Your task to perform on an android device: uninstall "TextNow: Call + Text Unlimited" Image 0: 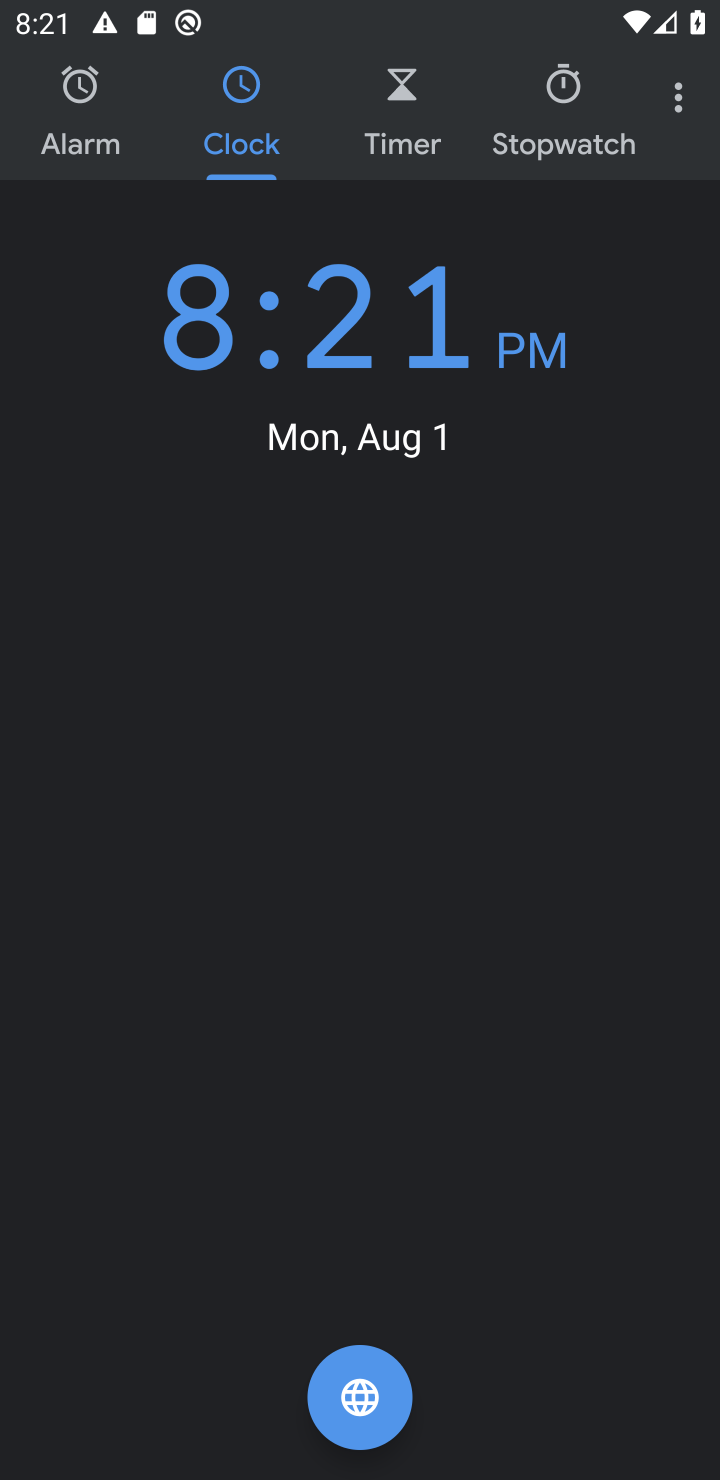
Step 0: press home button
Your task to perform on an android device: uninstall "TextNow: Call + Text Unlimited" Image 1: 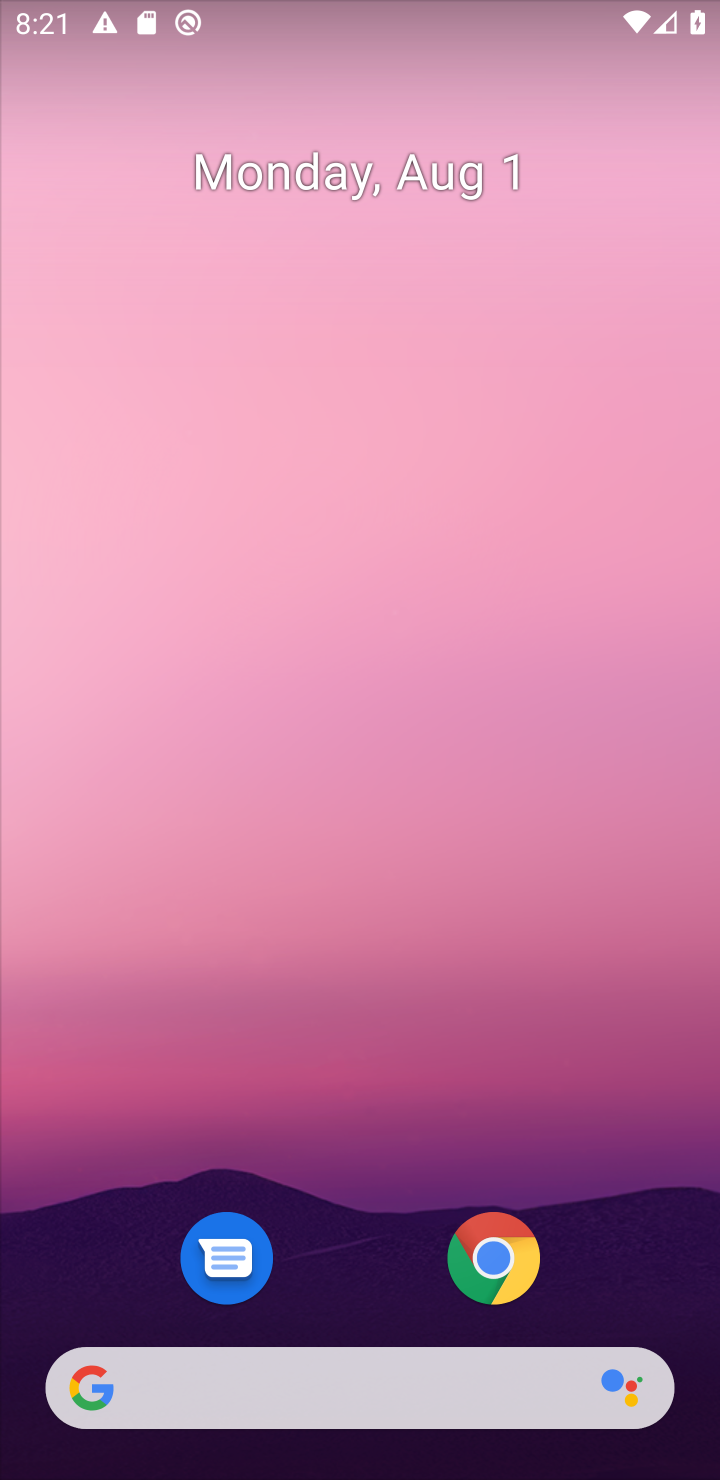
Step 1: drag from (377, 1286) to (235, 2)
Your task to perform on an android device: uninstall "TextNow: Call + Text Unlimited" Image 2: 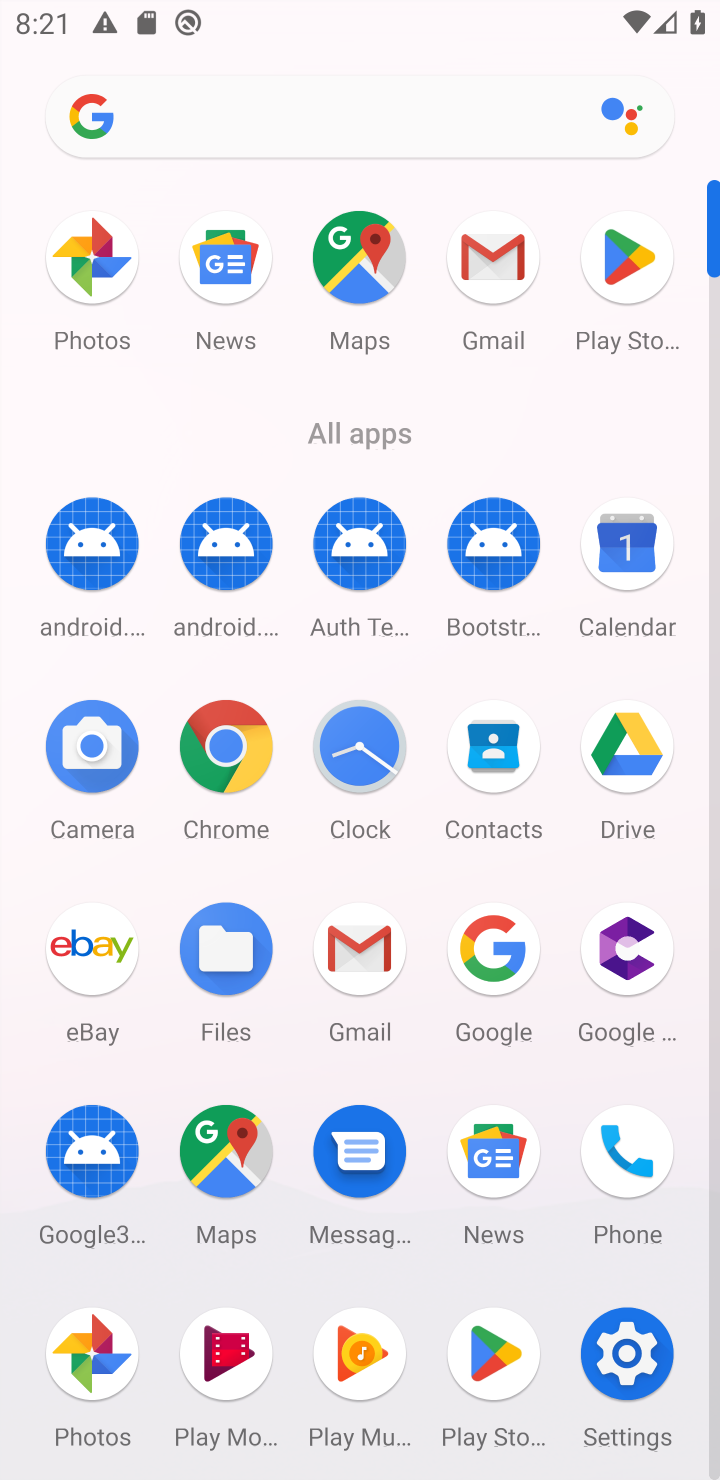
Step 2: click (497, 1333)
Your task to perform on an android device: uninstall "TextNow: Call + Text Unlimited" Image 3: 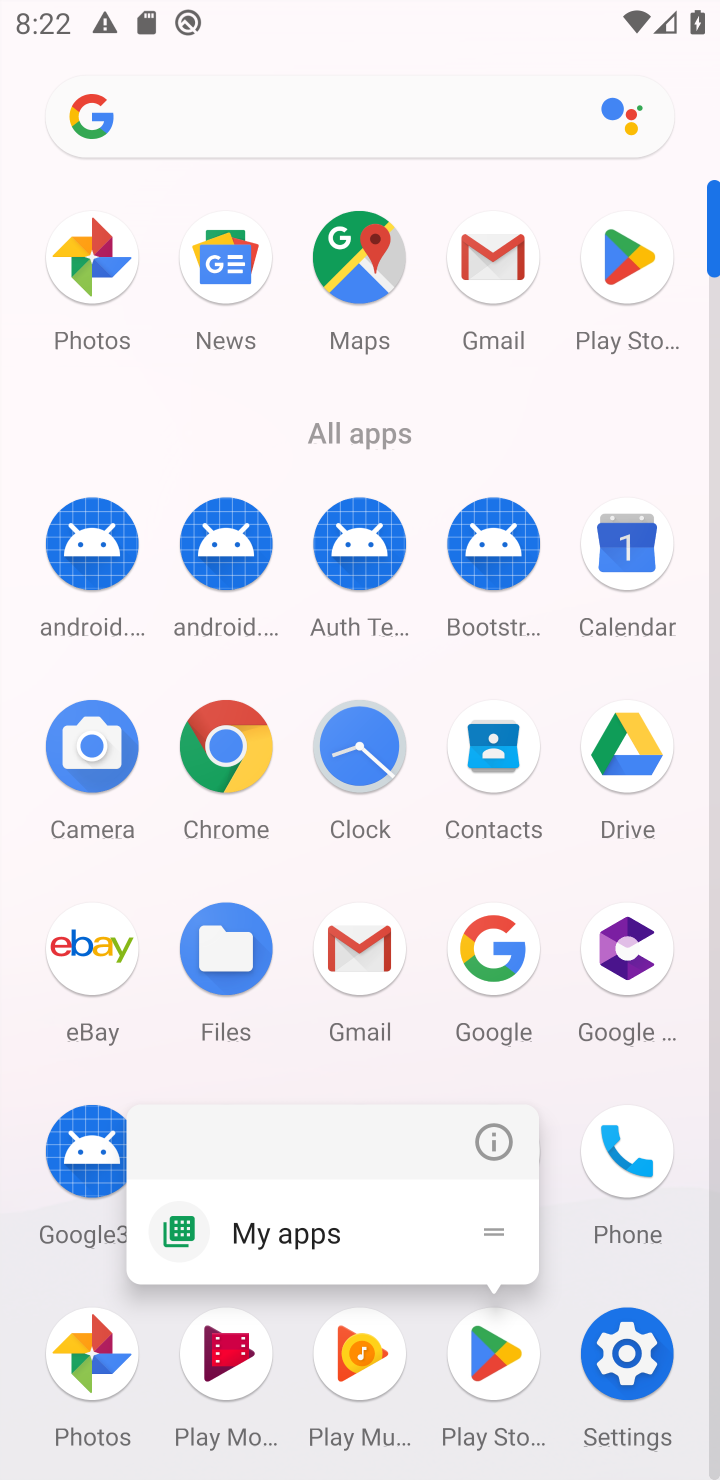
Step 3: click (482, 1355)
Your task to perform on an android device: uninstall "TextNow: Call + Text Unlimited" Image 4: 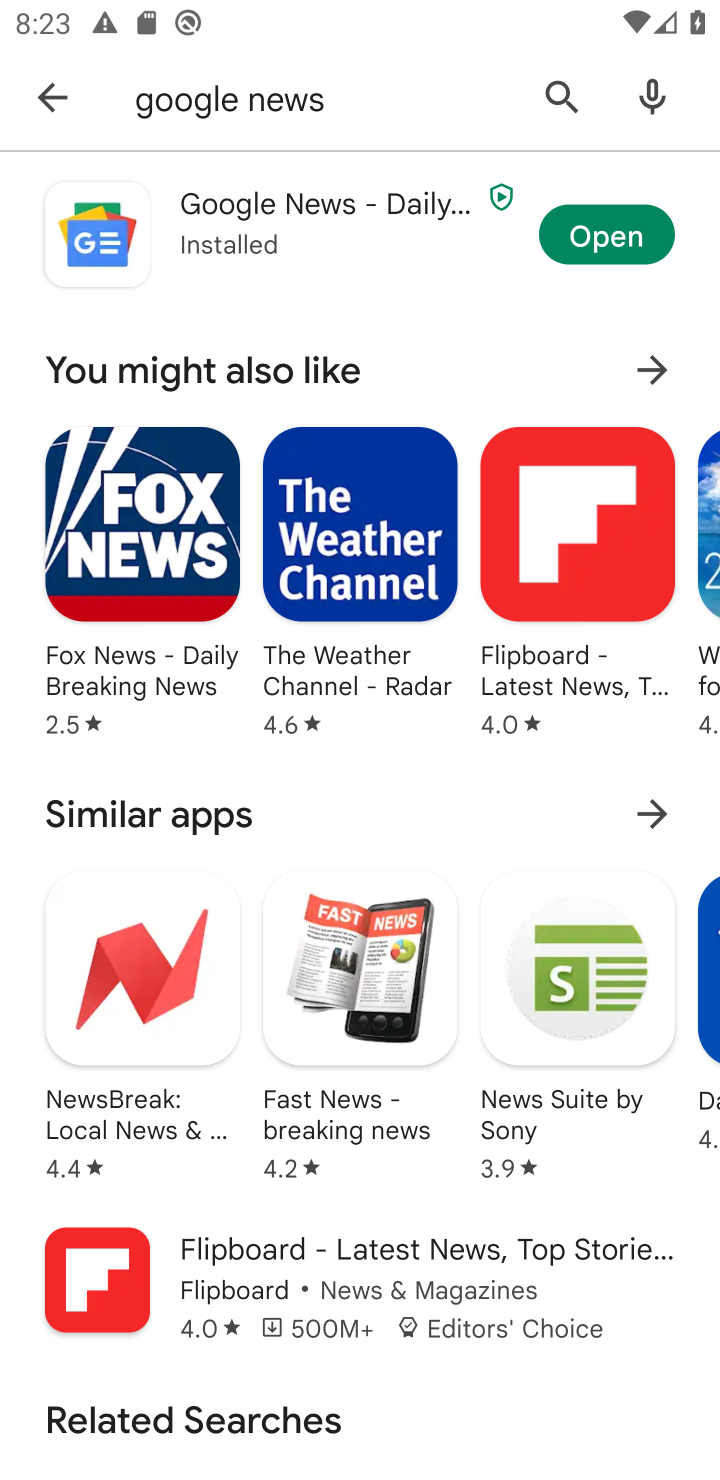
Step 4: click (58, 101)
Your task to perform on an android device: uninstall "TextNow: Call + Text Unlimited" Image 5: 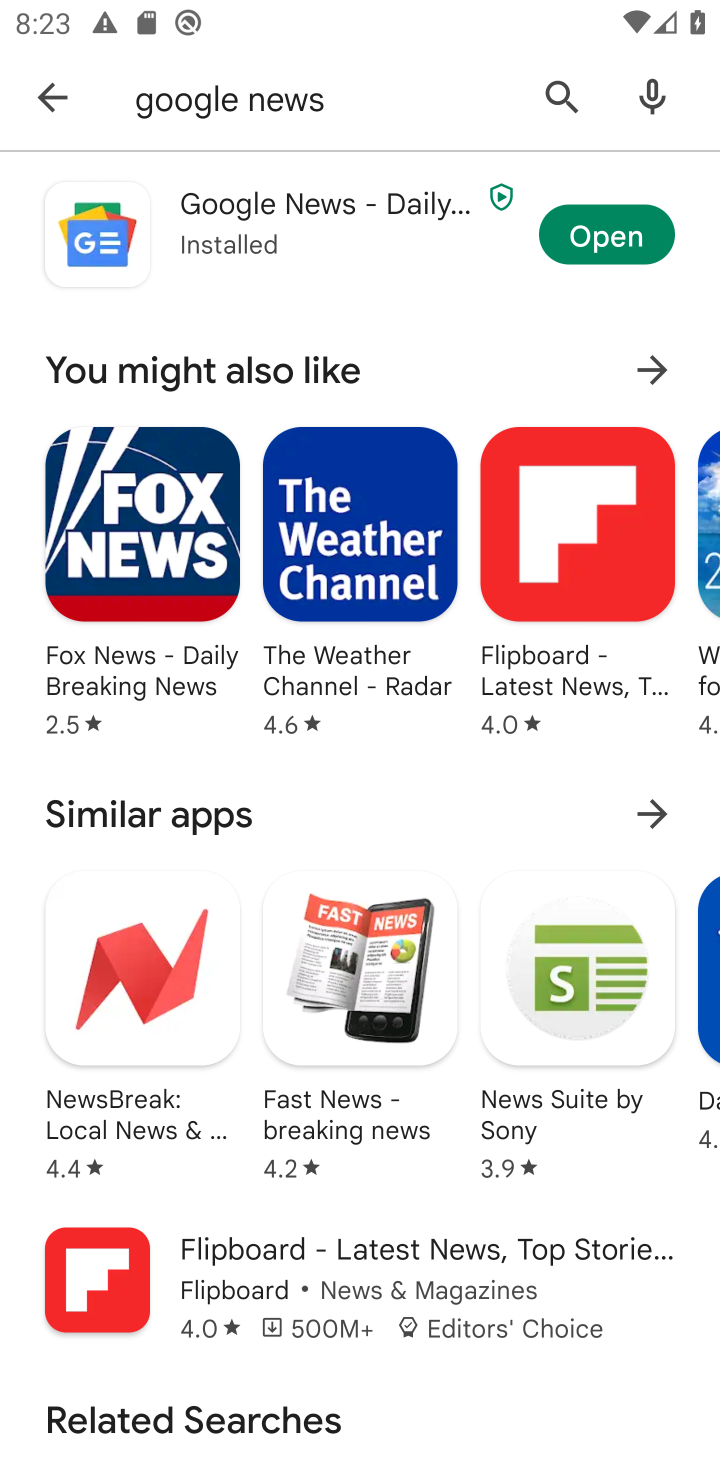
Step 5: click (50, 85)
Your task to perform on an android device: uninstall "TextNow: Call + Text Unlimited" Image 6: 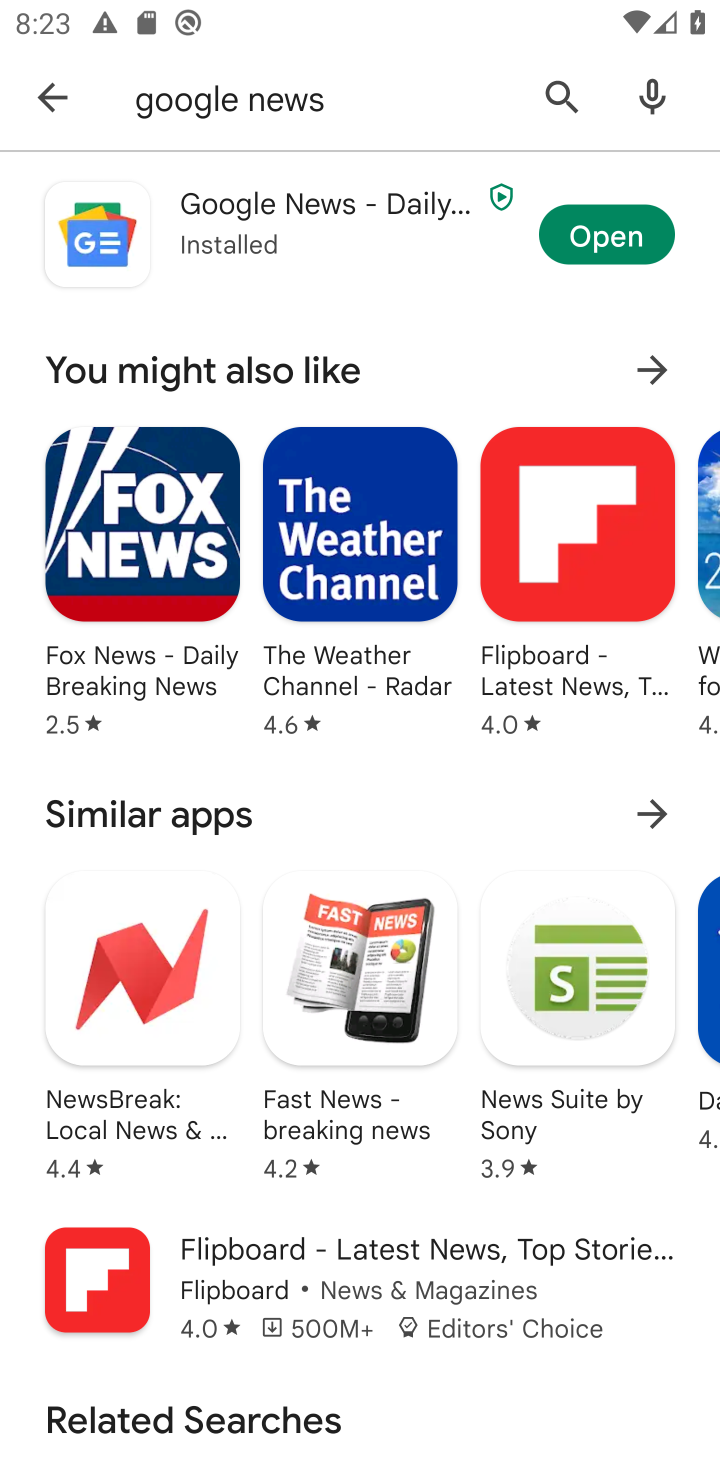
Step 6: click (55, 102)
Your task to perform on an android device: uninstall "TextNow: Call + Text Unlimited" Image 7: 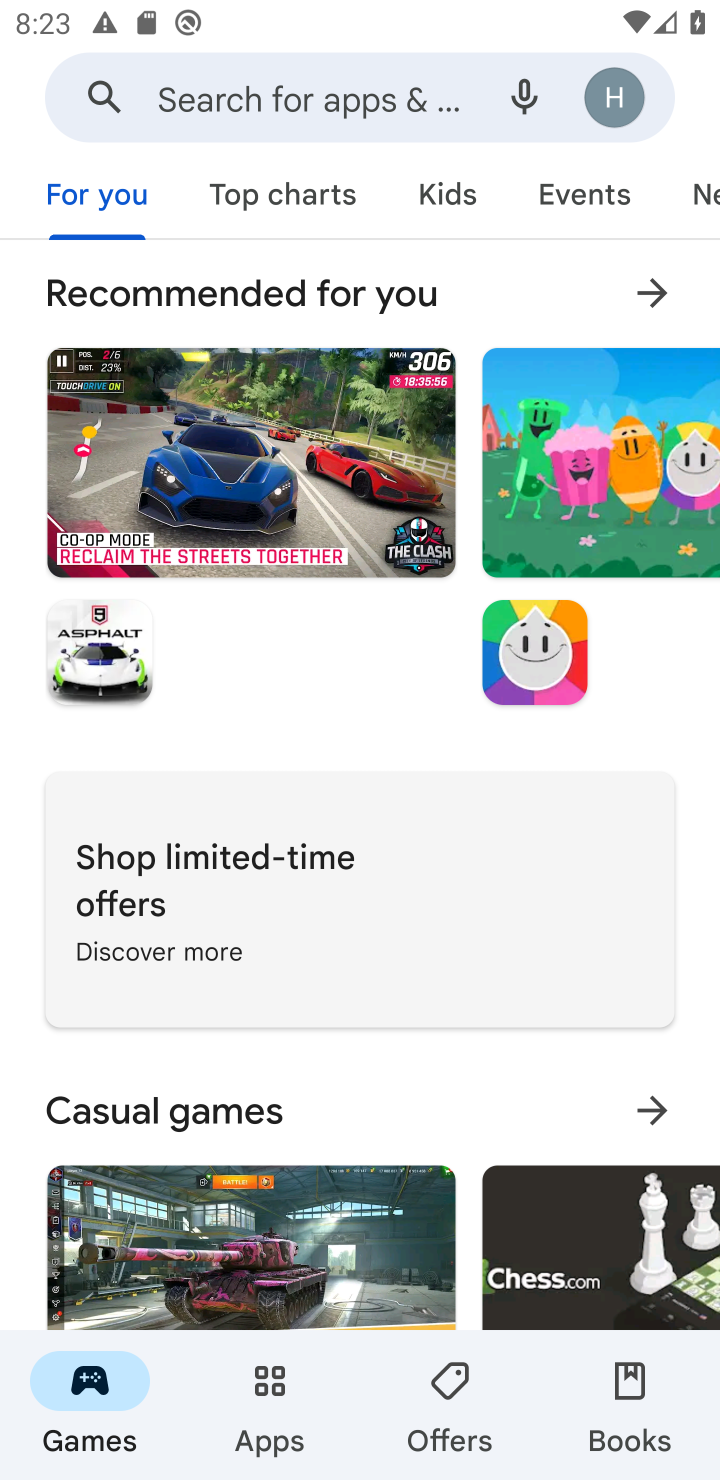
Step 7: click (237, 86)
Your task to perform on an android device: uninstall "TextNow: Call + Text Unlimited" Image 8: 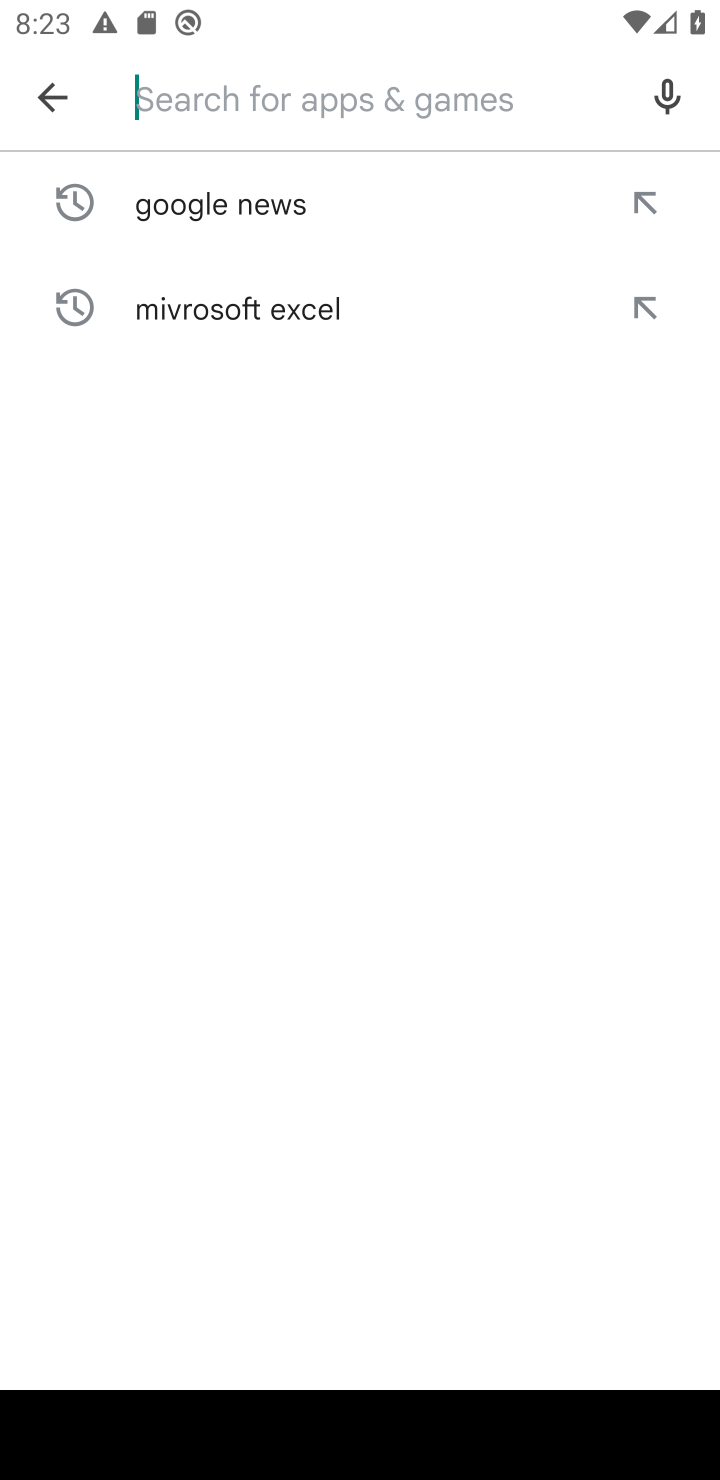
Step 8: type "TextNow: Call + Text Unlimited"
Your task to perform on an android device: uninstall "TextNow: Call + Text Unlimited" Image 9: 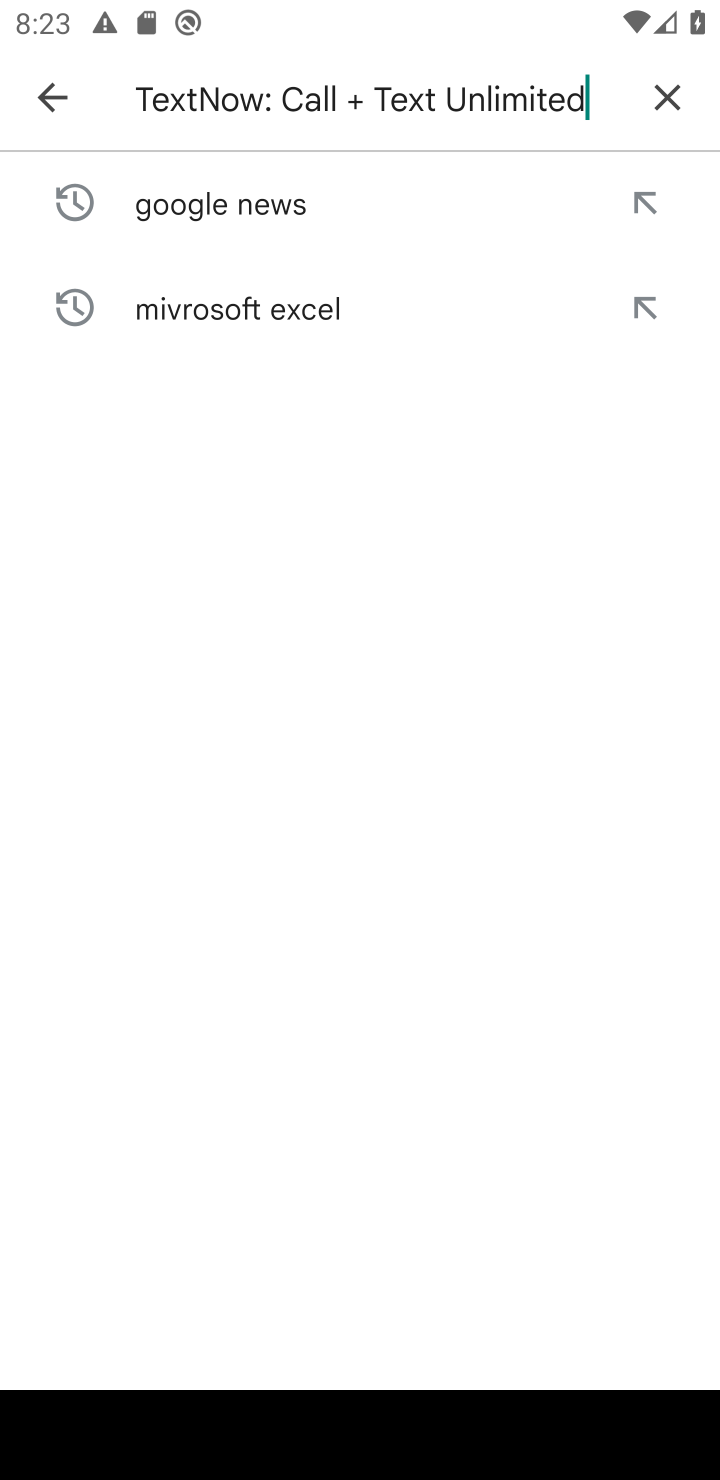
Step 9: type ""
Your task to perform on an android device: uninstall "TextNow: Call + Text Unlimited" Image 10: 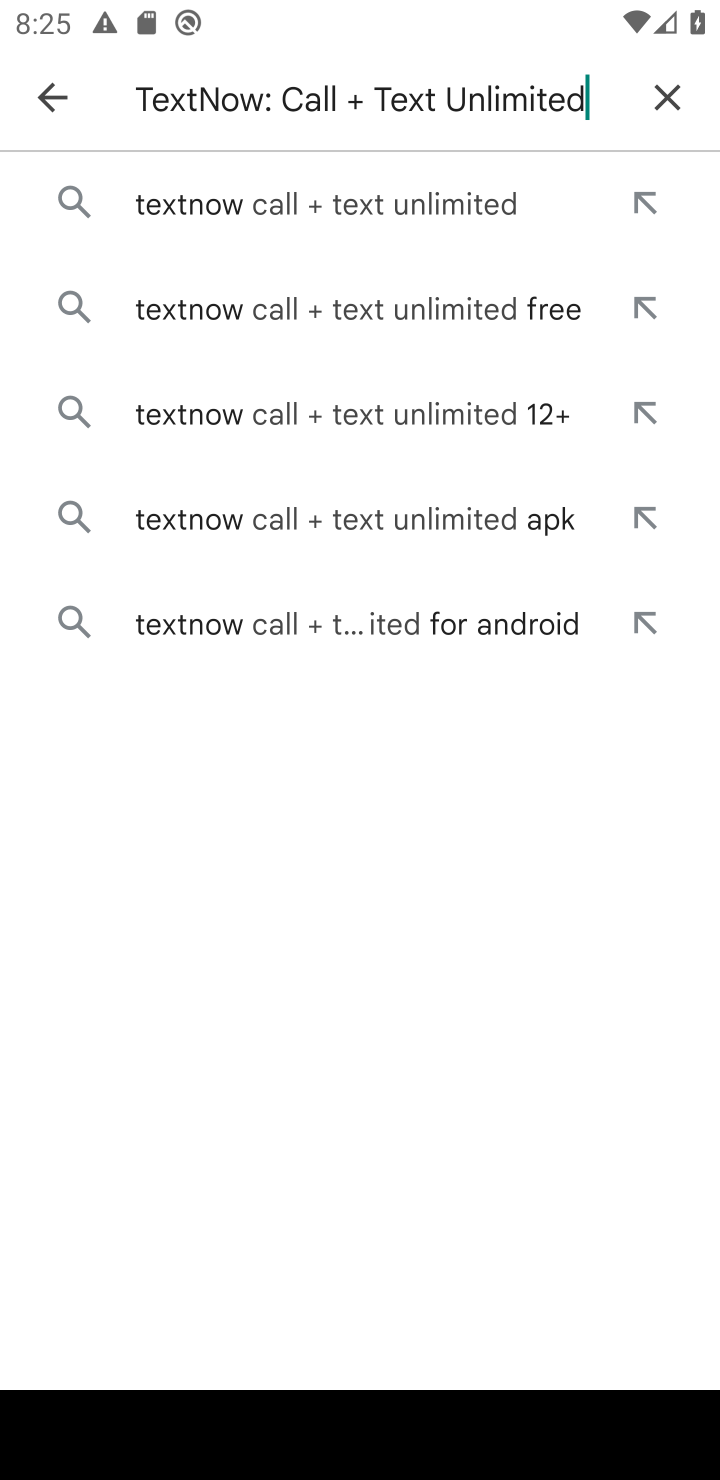
Step 10: click (228, 188)
Your task to perform on an android device: uninstall "TextNow: Call + Text Unlimited" Image 11: 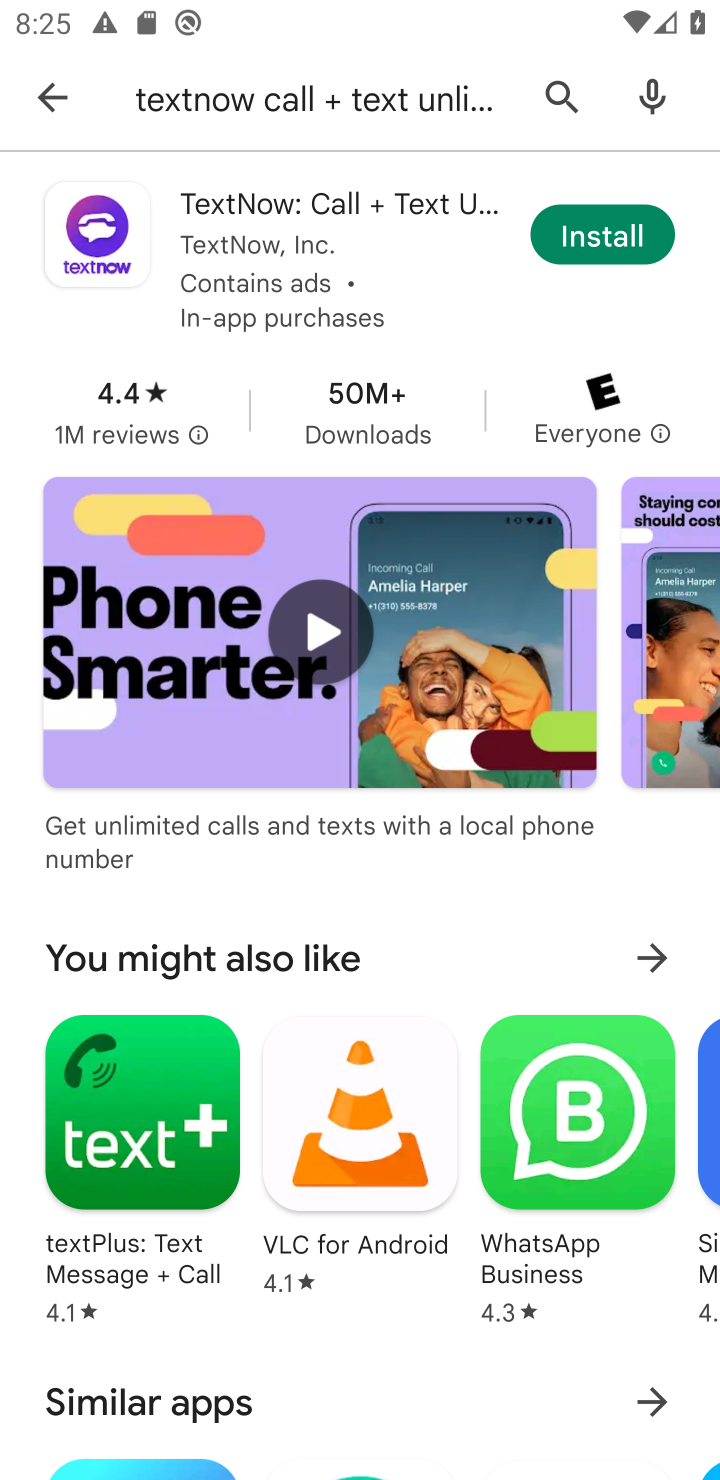
Step 11: task complete